Your task to perform on an android device: Open eBay Image 0: 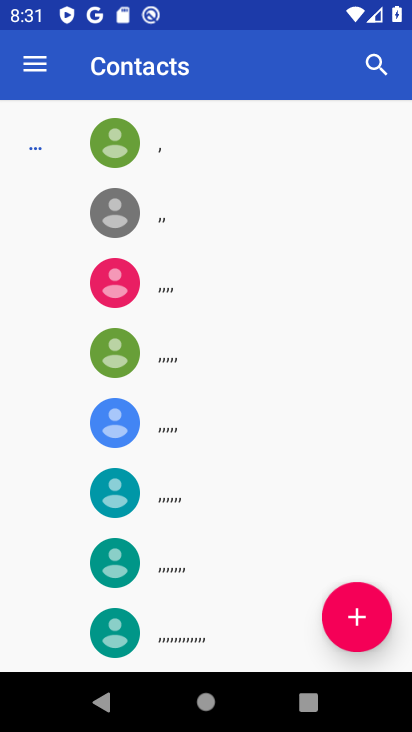
Step 0: press home button
Your task to perform on an android device: Open eBay Image 1: 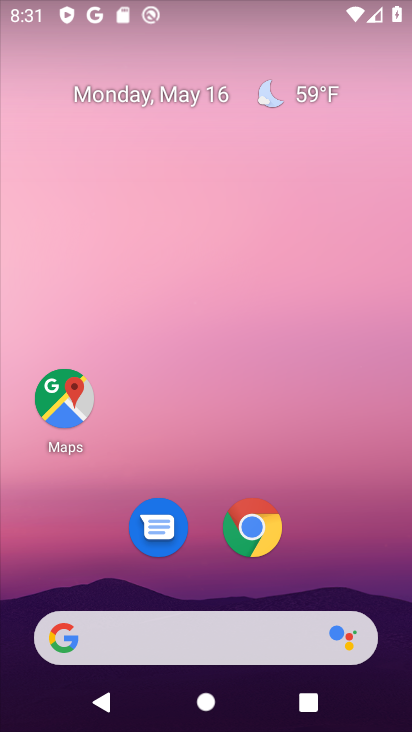
Step 1: drag from (330, 603) to (303, 196)
Your task to perform on an android device: Open eBay Image 2: 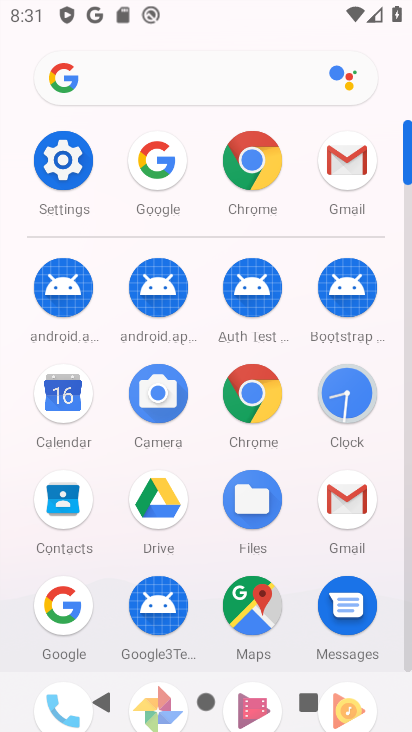
Step 2: click (230, 166)
Your task to perform on an android device: Open eBay Image 3: 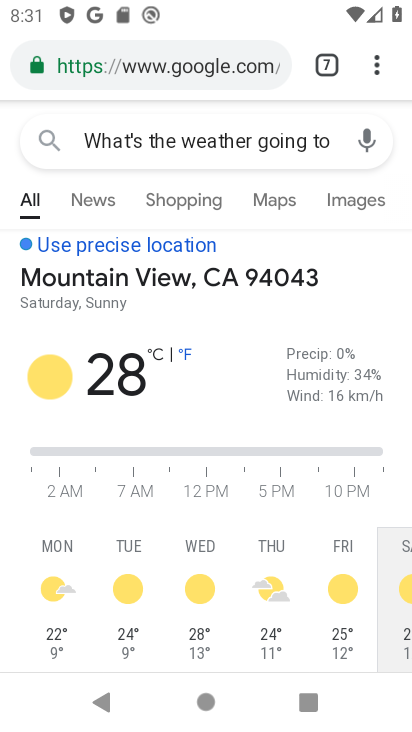
Step 3: click (367, 63)
Your task to perform on an android device: Open eBay Image 4: 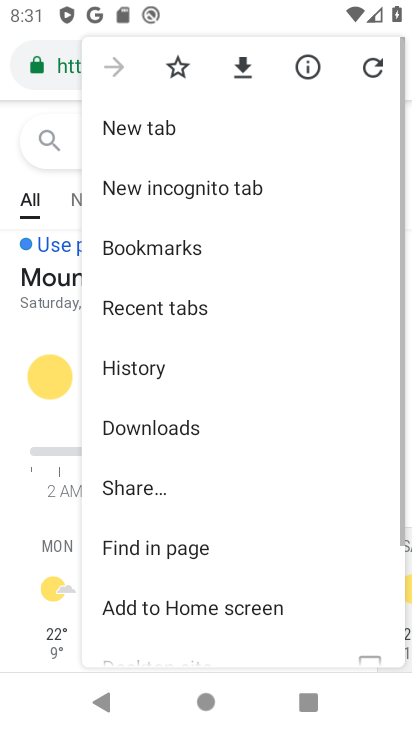
Step 4: click (175, 131)
Your task to perform on an android device: Open eBay Image 5: 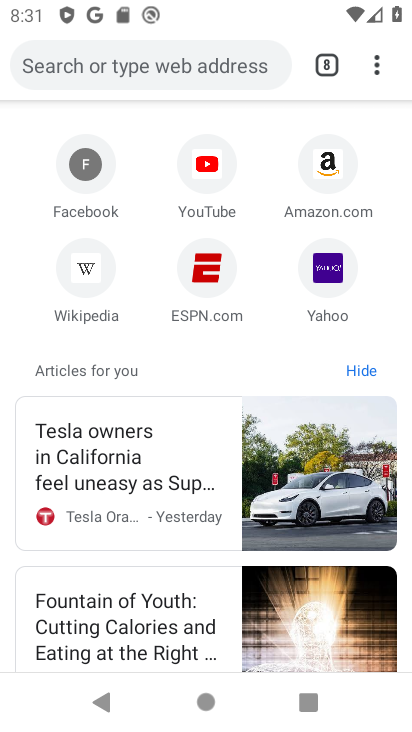
Step 5: click (126, 52)
Your task to perform on an android device: Open eBay Image 6: 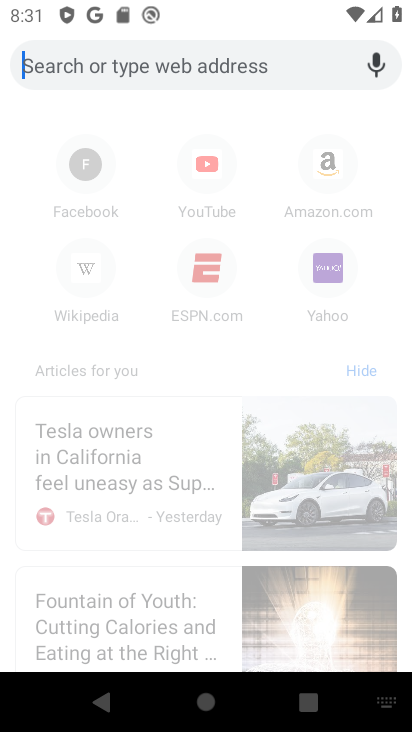
Step 6: type "eBay"
Your task to perform on an android device: Open eBay Image 7: 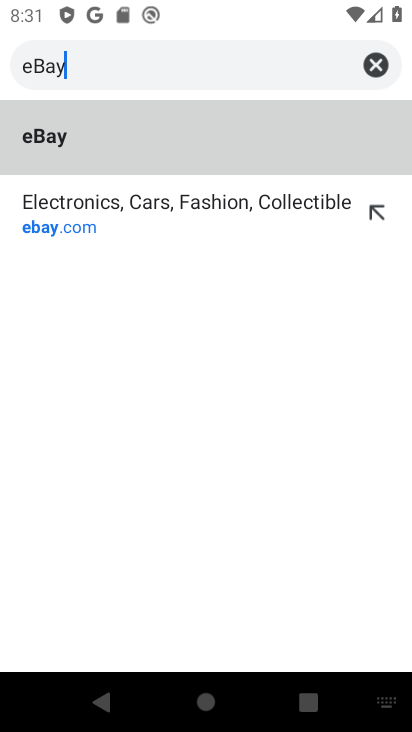
Step 7: click (266, 152)
Your task to perform on an android device: Open eBay Image 8: 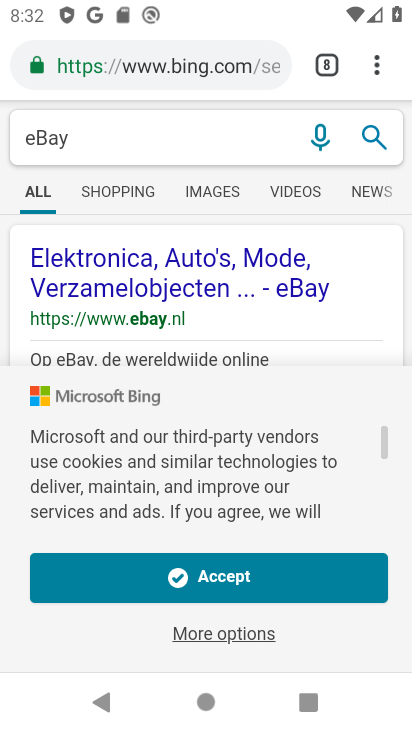
Step 8: task complete